Your task to perform on an android device: Toggle the flashlight Image 0: 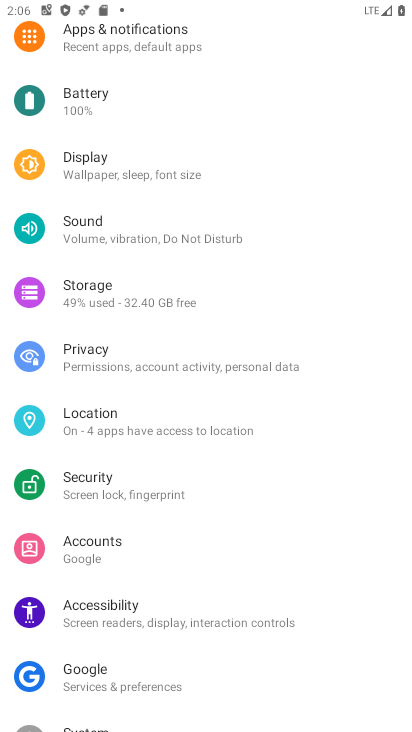
Step 0: drag from (207, 667) to (214, 227)
Your task to perform on an android device: Toggle the flashlight Image 1: 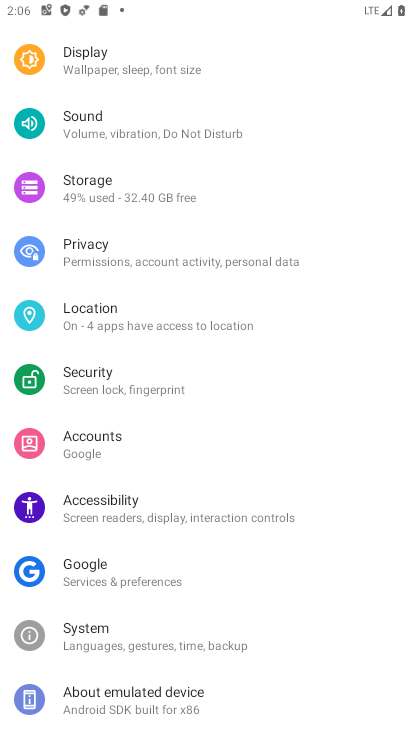
Step 1: task complete